Your task to perform on an android device: Go to sound settings Image 0: 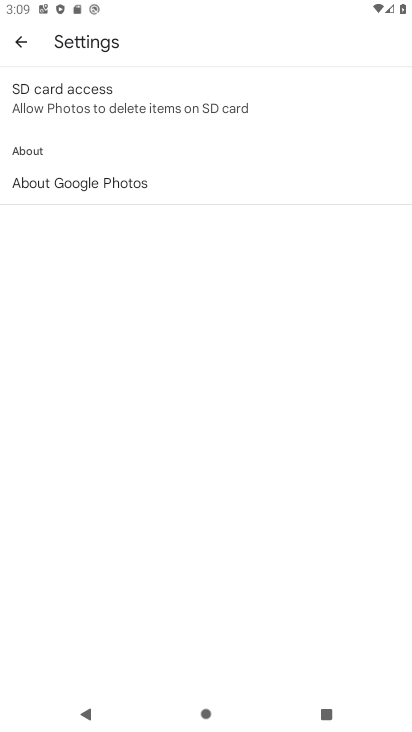
Step 0: press home button
Your task to perform on an android device: Go to sound settings Image 1: 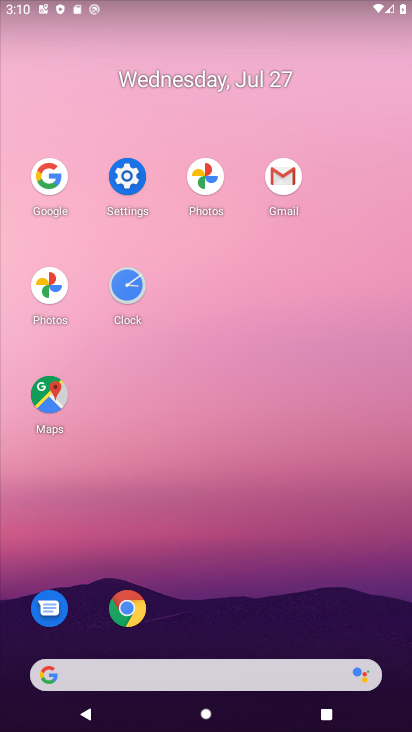
Step 1: click (135, 182)
Your task to perform on an android device: Go to sound settings Image 2: 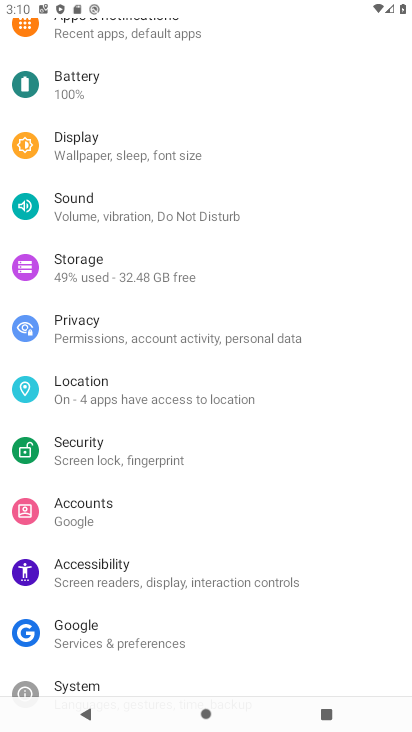
Step 2: click (163, 196)
Your task to perform on an android device: Go to sound settings Image 3: 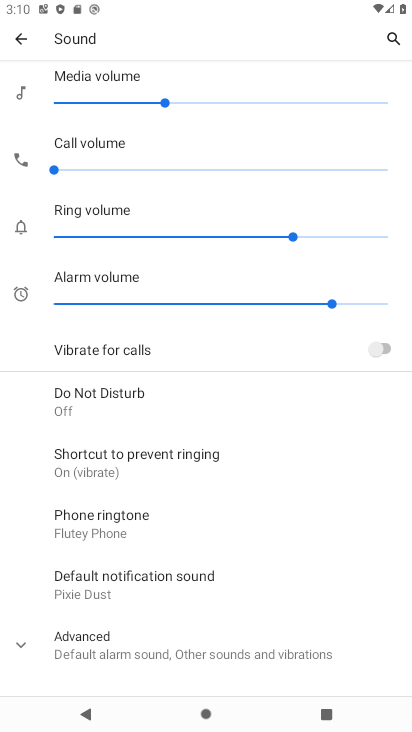
Step 3: task complete